Your task to perform on an android device: Open network settings Image 0: 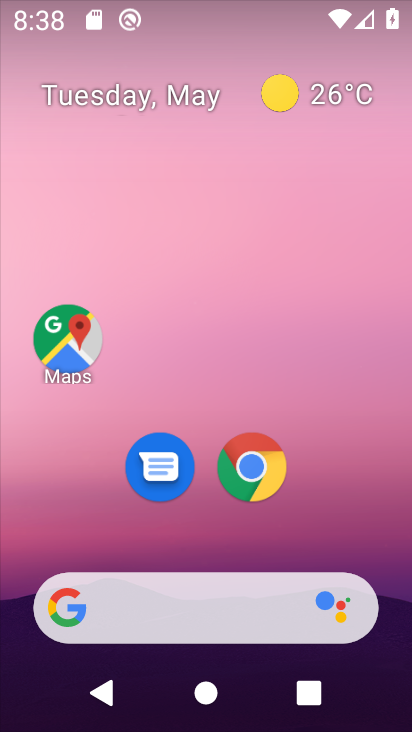
Step 0: drag from (382, 675) to (348, 170)
Your task to perform on an android device: Open network settings Image 1: 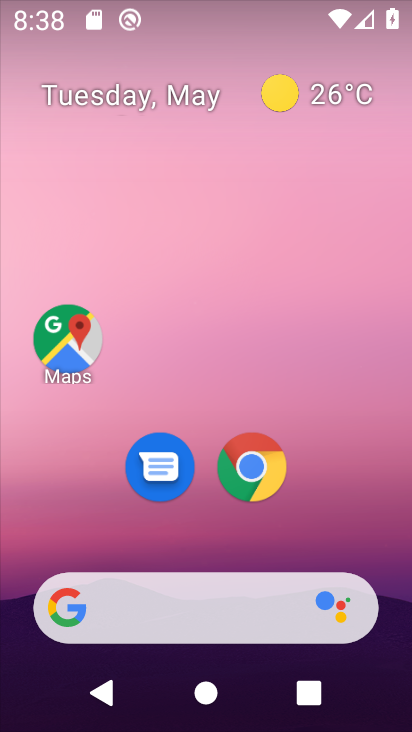
Step 1: drag from (386, 657) to (324, 221)
Your task to perform on an android device: Open network settings Image 2: 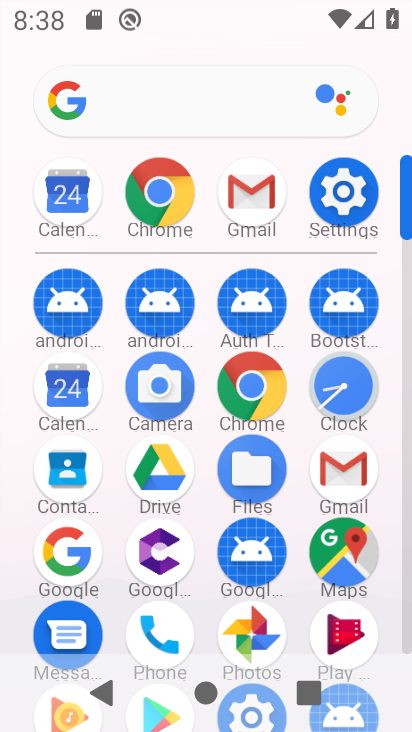
Step 2: click (330, 199)
Your task to perform on an android device: Open network settings Image 3: 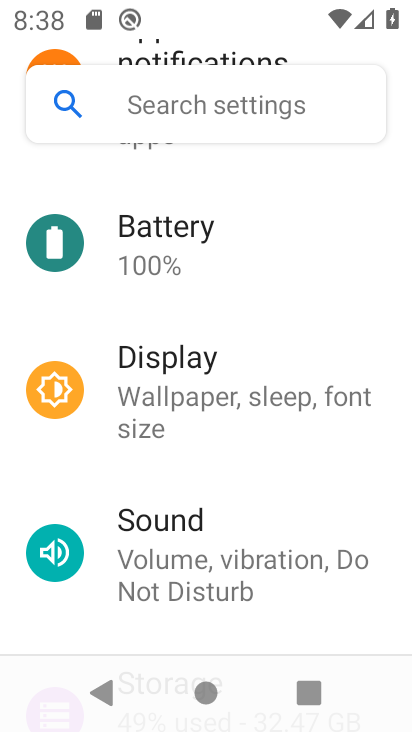
Step 3: drag from (297, 216) to (292, 561)
Your task to perform on an android device: Open network settings Image 4: 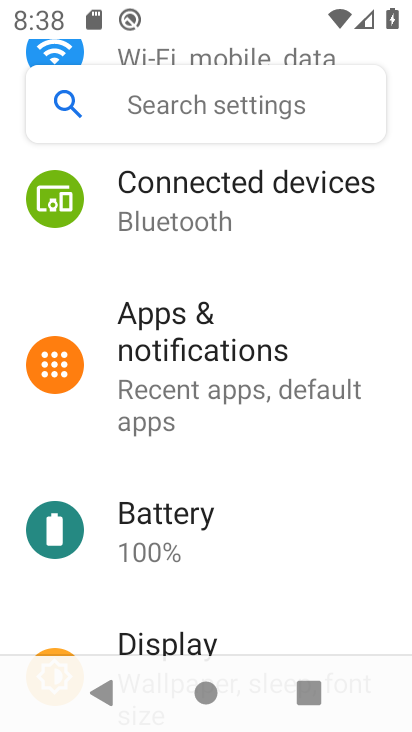
Step 4: drag from (326, 224) to (321, 521)
Your task to perform on an android device: Open network settings Image 5: 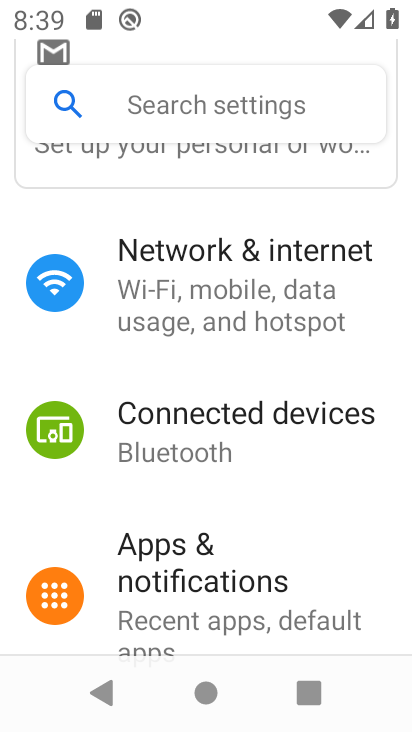
Step 5: click (283, 258)
Your task to perform on an android device: Open network settings Image 6: 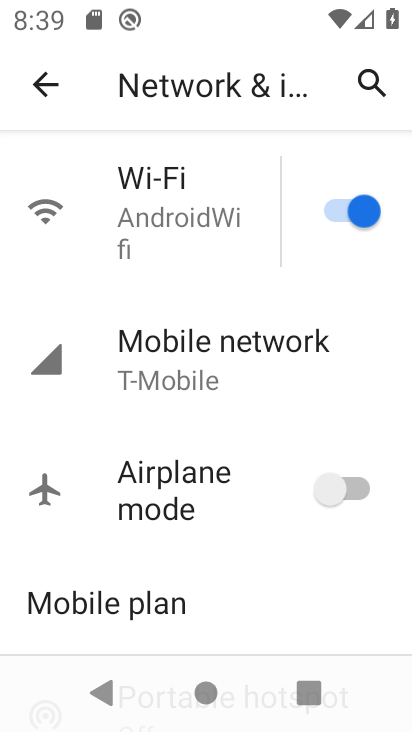
Step 6: drag from (243, 535) to (229, 326)
Your task to perform on an android device: Open network settings Image 7: 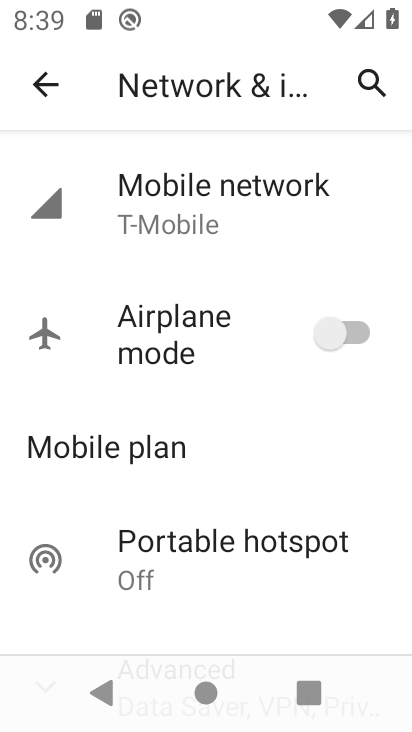
Step 7: click (198, 196)
Your task to perform on an android device: Open network settings Image 8: 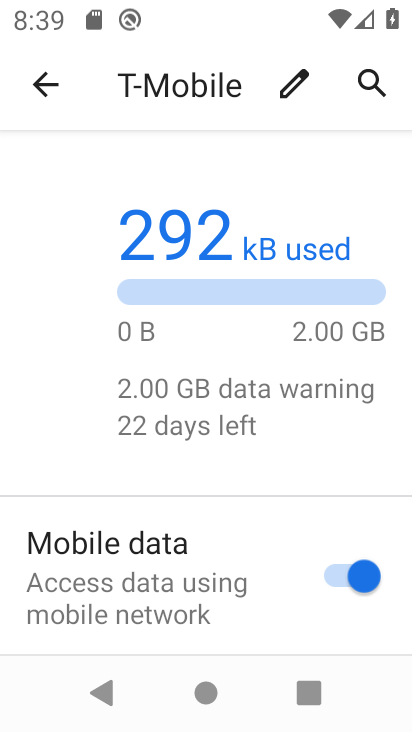
Step 8: drag from (275, 613) to (264, 271)
Your task to perform on an android device: Open network settings Image 9: 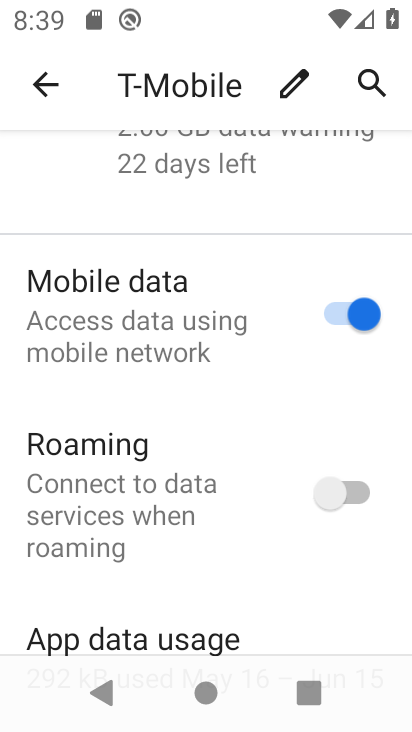
Step 9: drag from (277, 609) to (216, 268)
Your task to perform on an android device: Open network settings Image 10: 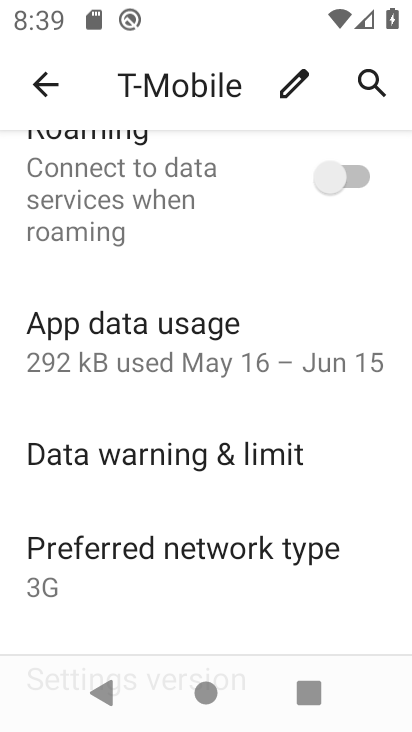
Step 10: drag from (218, 593) to (188, 319)
Your task to perform on an android device: Open network settings Image 11: 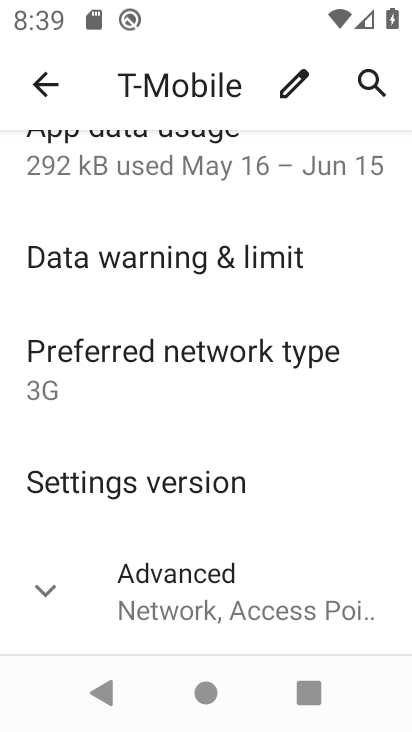
Step 11: click (56, 586)
Your task to perform on an android device: Open network settings Image 12: 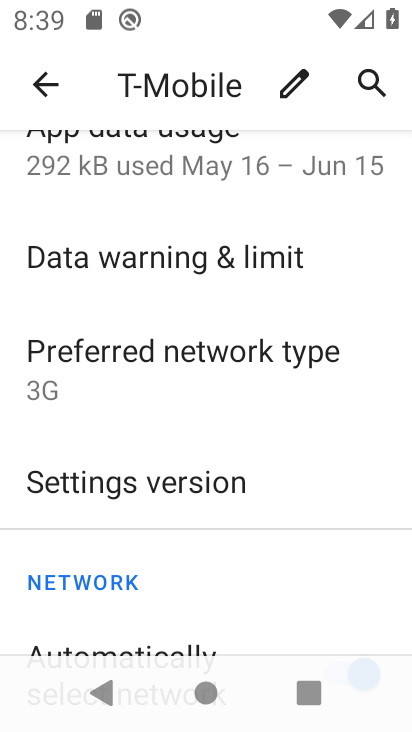
Step 12: task complete